Your task to perform on an android device: When is my next appointment? Image 0: 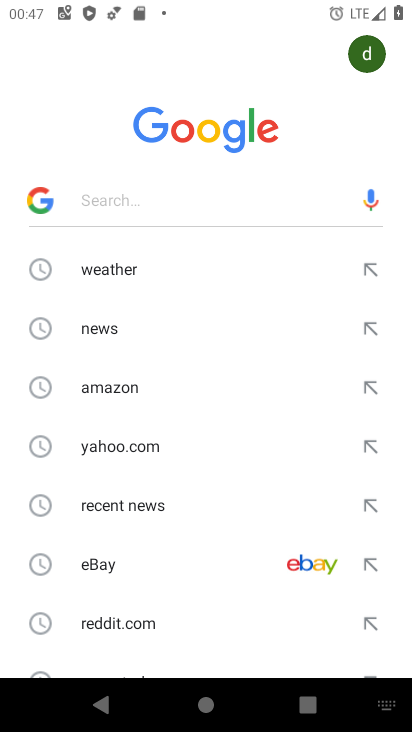
Step 0: press home button
Your task to perform on an android device: When is my next appointment? Image 1: 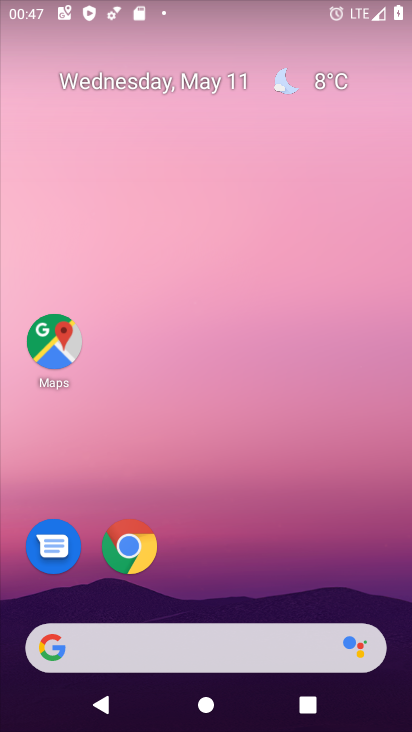
Step 1: drag from (210, 660) to (346, 171)
Your task to perform on an android device: When is my next appointment? Image 2: 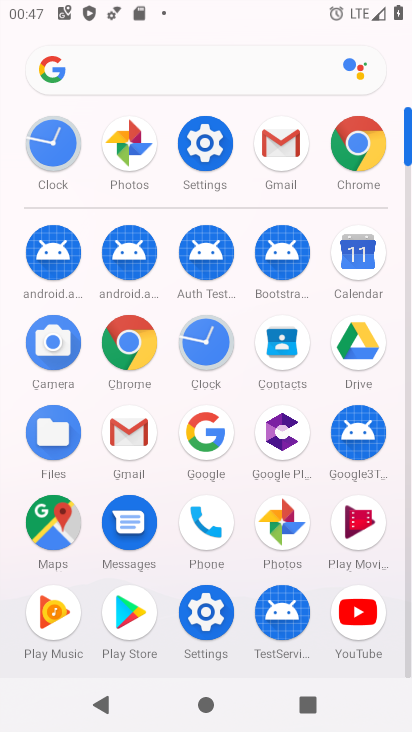
Step 2: click (360, 262)
Your task to perform on an android device: When is my next appointment? Image 3: 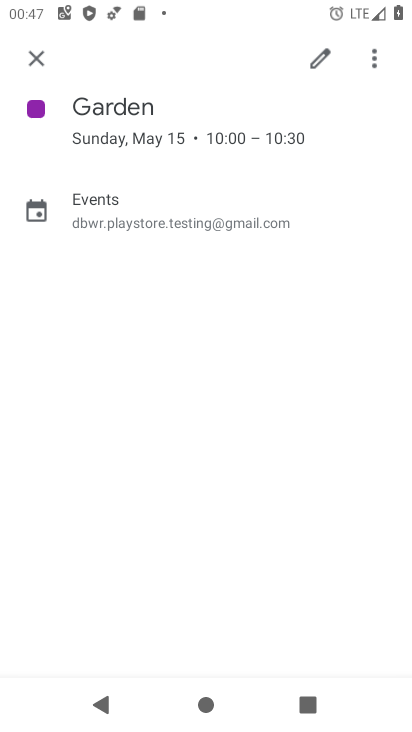
Step 3: click (44, 60)
Your task to perform on an android device: When is my next appointment? Image 4: 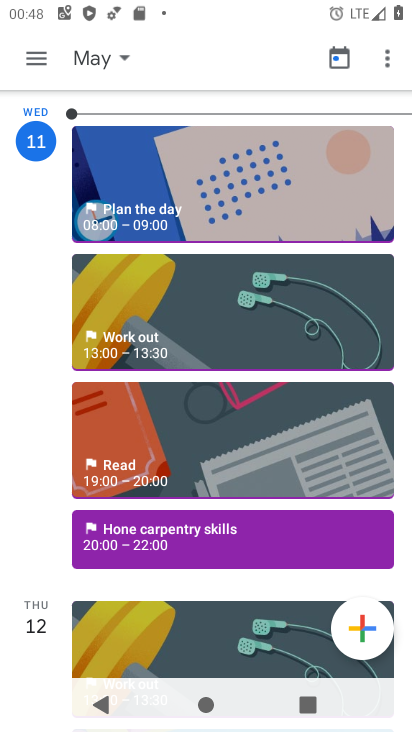
Step 4: click (92, 53)
Your task to perform on an android device: When is my next appointment? Image 5: 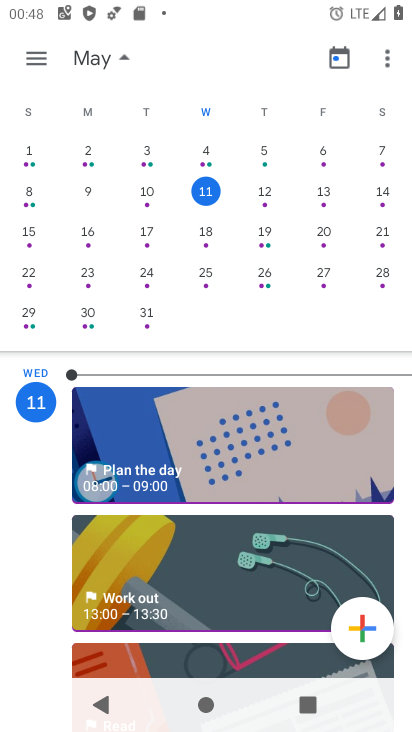
Step 5: click (38, 61)
Your task to perform on an android device: When is my next appointment? Image 6: 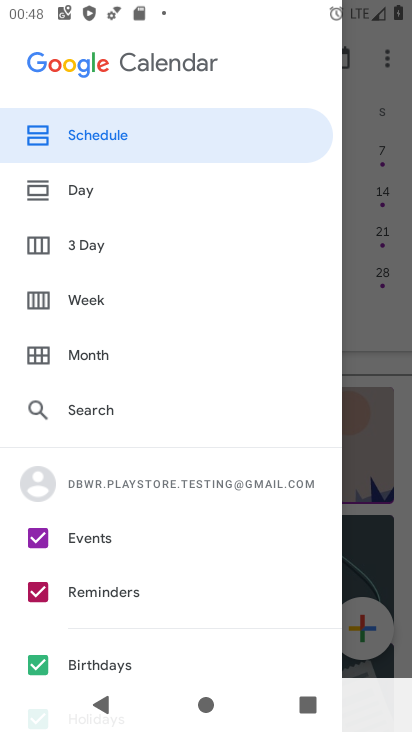
Step 6: click (113, 146)
Your task to perform on an android device: When is my next appointment? Image 7: 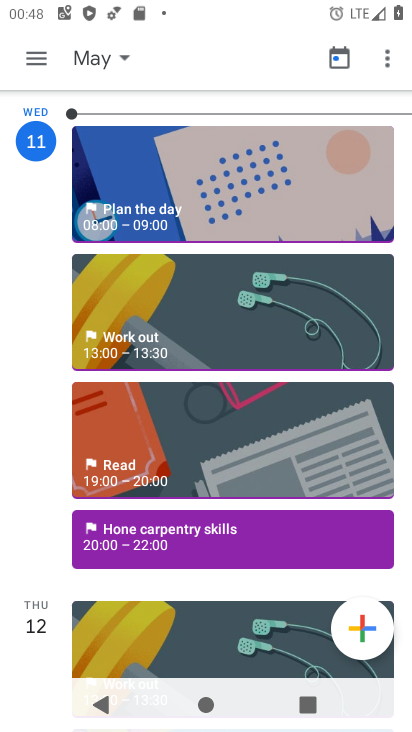
Step 7: click (245, 545)
Your task to perform on an android device: When is my next appointment? Image 8: 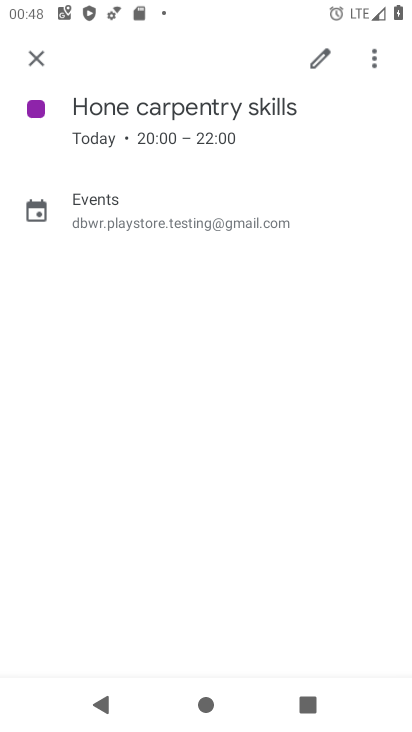
Step 8: task complete